Your task to perform on an android device: Do I have any events today? Image 0: 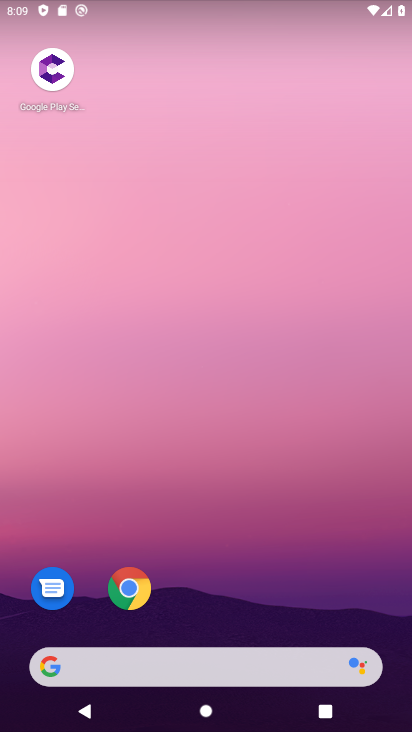
Step 0: drag from (40, 328) to (305, 318)
Your task to perform on an android device: Do I have any events today? Image 1: 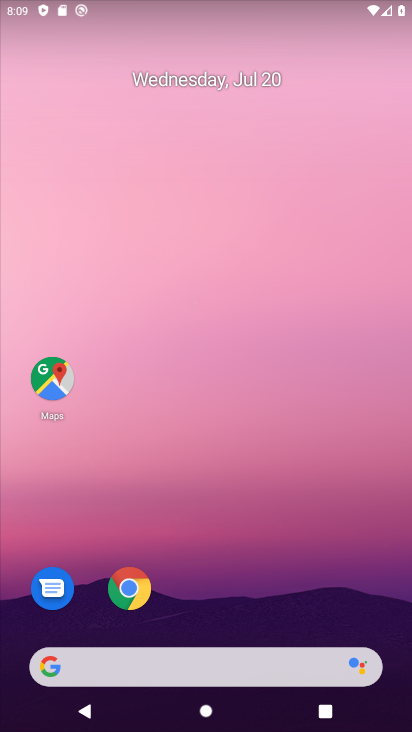
Step 1: click (201, 87)
Your task to perform on an android device: Do I have any events today? Image 2: 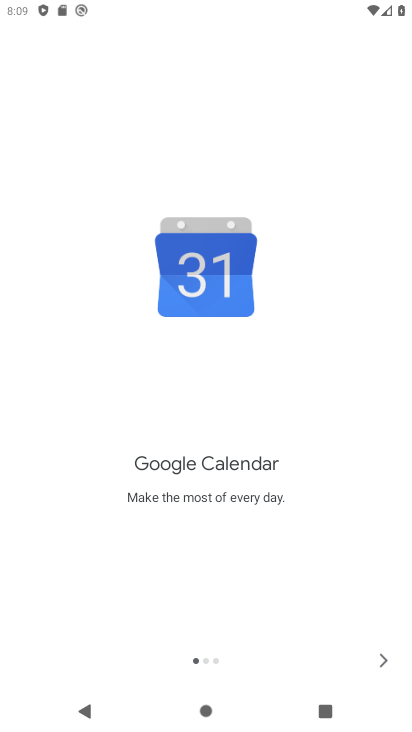
Step 2: click (379, 671)
Your task to perform on an android device: Do I have any events today? Image 3: 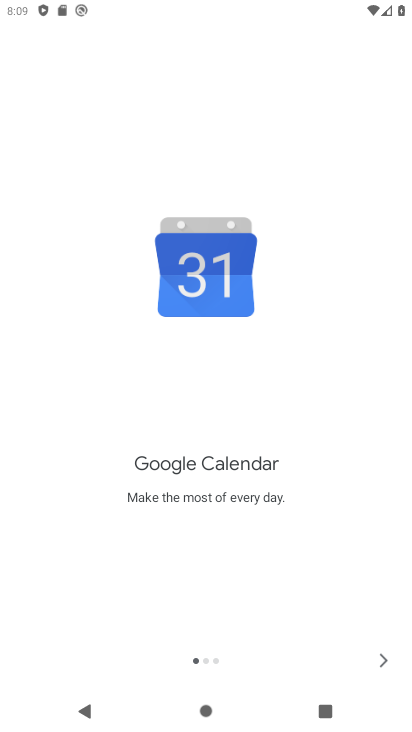
Step 3: click (379, 671)
Your task to perform on an android device: Do I have any events today? Image 4: 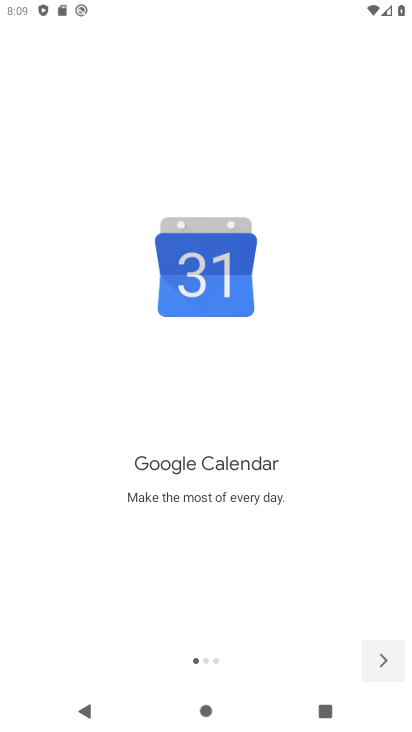
Step 4: click (379, 671)
Your task to perform on an android device: Do I have any events today? Image 5: 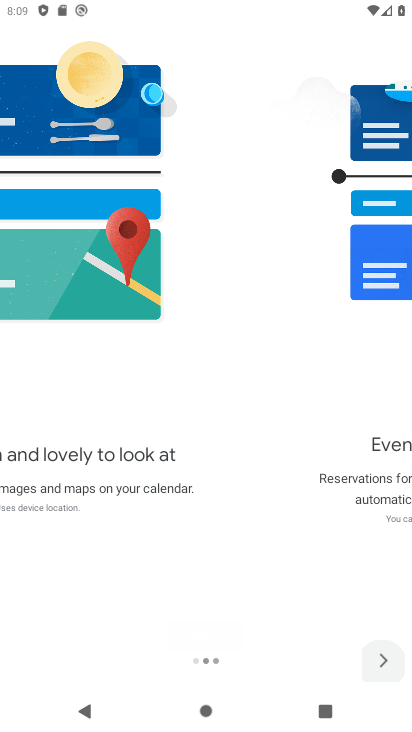
Step 5: click (379, 671)
Your task to perform on an android device: Do I have any events today? Image 6: 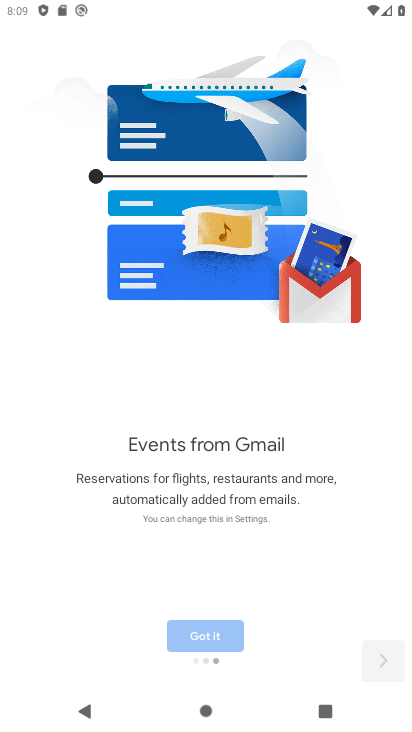
Step 6: click (379, 671)
Your task to perform on an android device: Do I have any events today? Image 7: 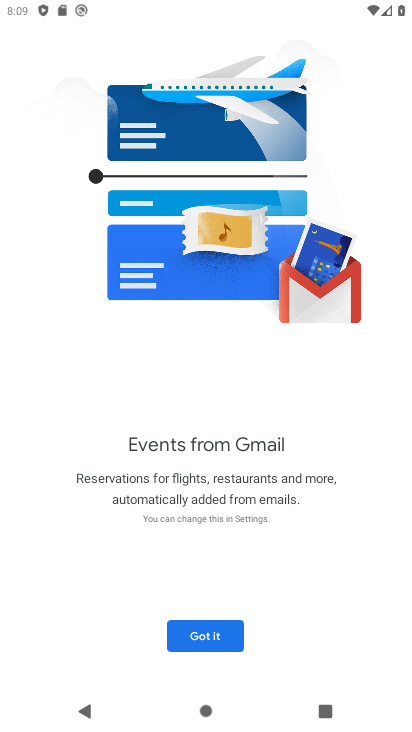
Step 7: click (379, 671)
Your task to perform on an android device: Do I have any events today? Image 8: 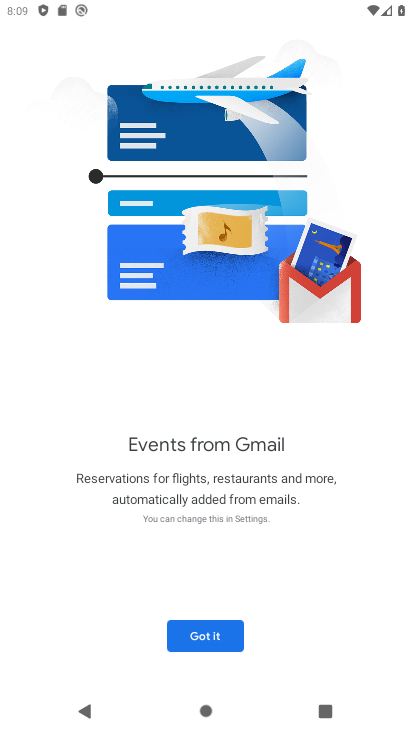
Step 8: click (379, 671)
Your task to perform on an android device: Do I have any events today? Image 9: 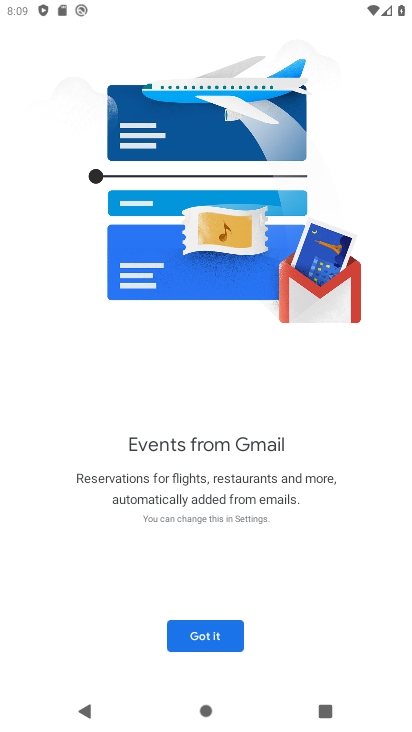
Step 9: click (190, 638)
Your task to perform on an android device: Do I have any events today? Image 10: 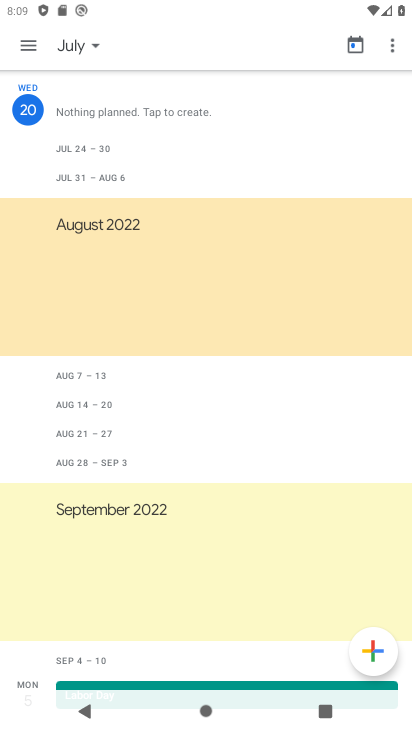
Step 10: click (84, 39)
Your task to perform on an android device: Do I have any events today? Image 11: 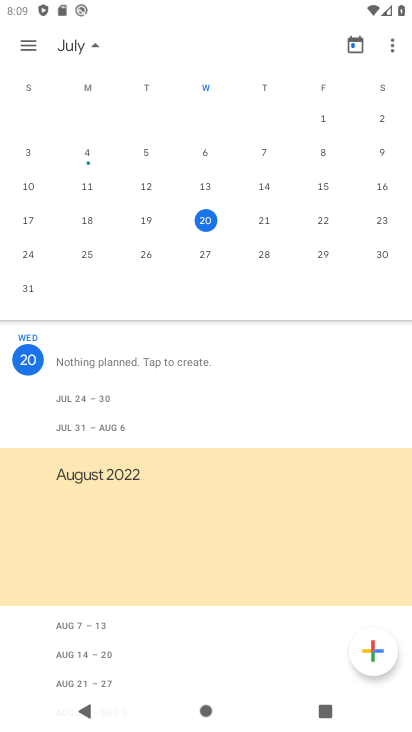
Step 11: task complete